Your task to perform on an android device: turn on javascript in the chrome app Image 0: 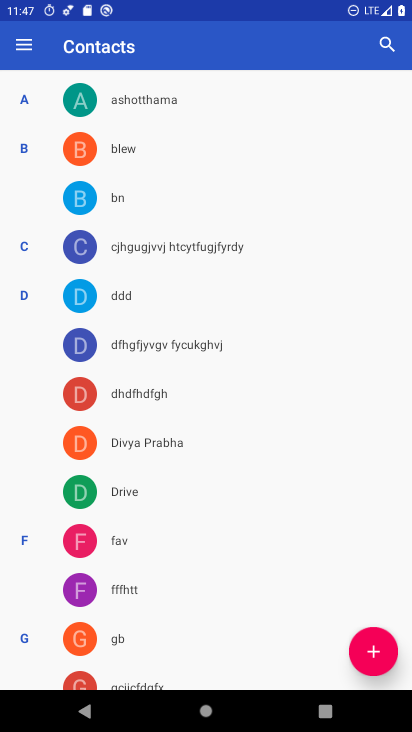
Step 0: press home button
Your task to perform on an android device: turn on javascript in the chrome app Image 1: 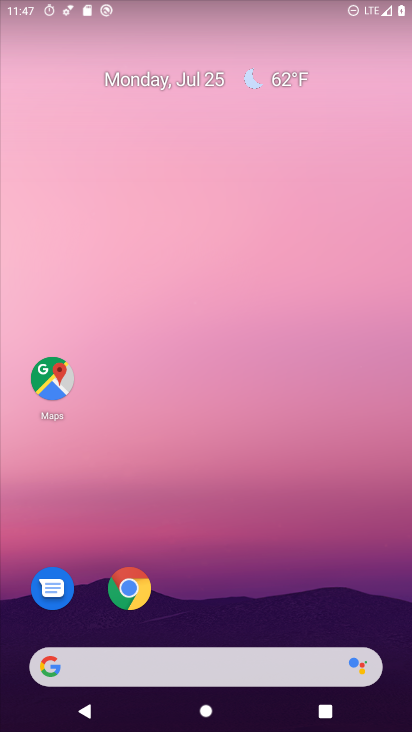
Step 1: click (134, 588)
Your task to perform on an android device: turn on javascript in the chrome app Image 2: 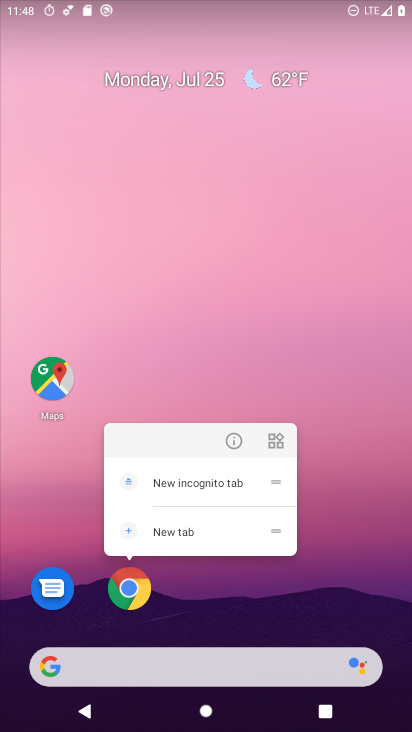
Step 2: click (123, 584)
Your task to perform on an android device: turn on javascript in the chrome app Image 3: 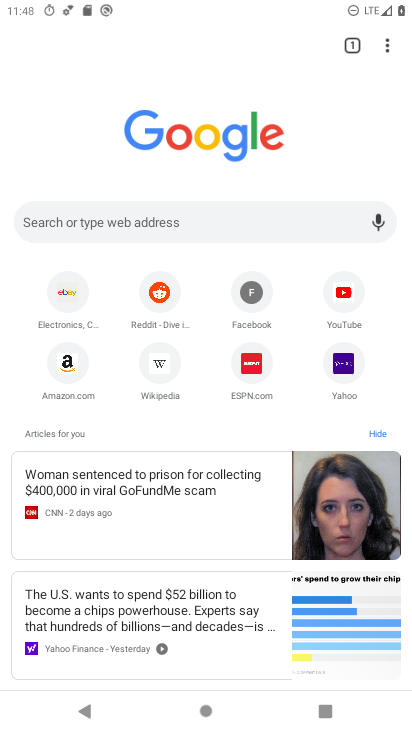
Step 3: click (383, 45)
Your task to perform on an android device: turn on javascript in the chrome app Image 4: 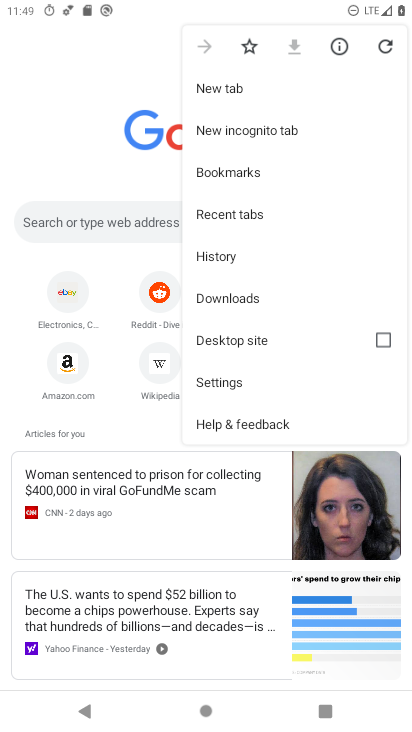
Step 4: click (241, 377)
Your task to perform on an android device: turn on javascript in the chrome app Image 5: 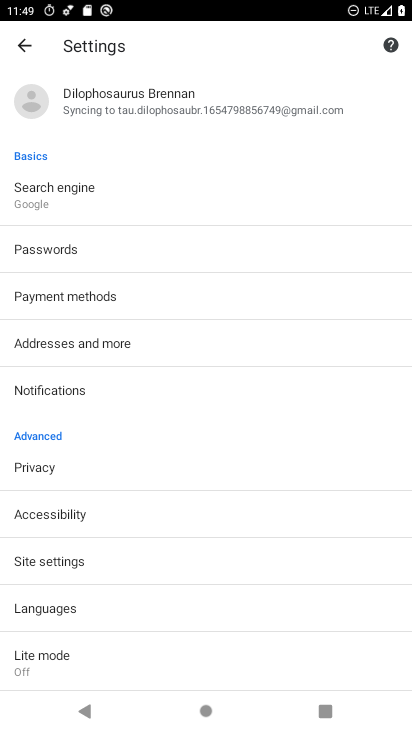
Step 5: click (77, 546)
Your task to perform on an android device: turn on javascript in the chrome app Image 6: 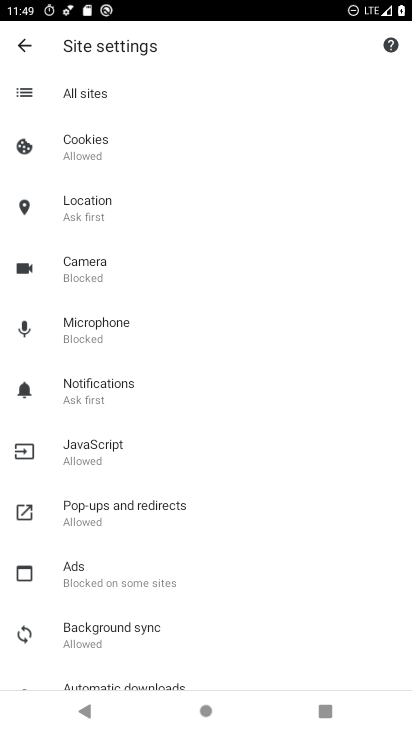
Step 6: click (138, 439)
Your task to perform on an android device: turn on javascript in the chrome app Image 7: 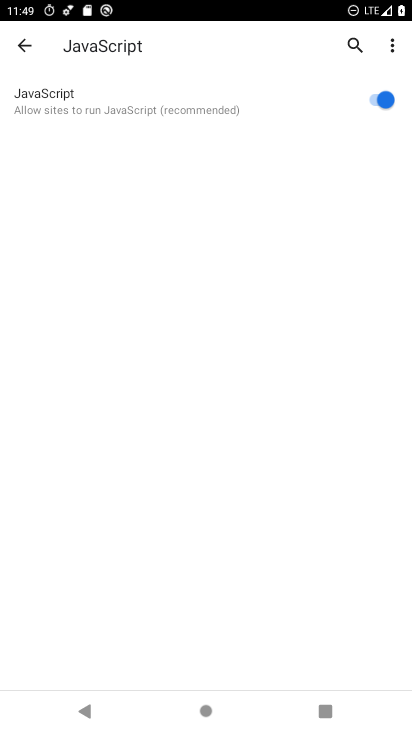
Step 7: task complete